Your task to perform on an android device: snooze an email in the gmail app Image 0: 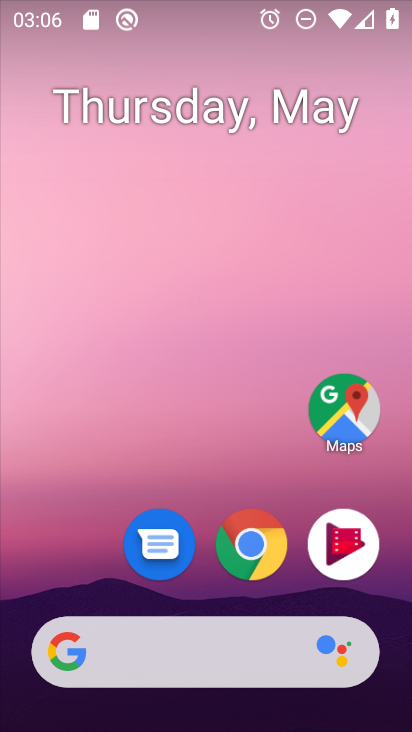
Step 0: drag from (80, 572) to (79, 185)
Your task to perform on an android device: snooze an email in the gmail app Image 1: 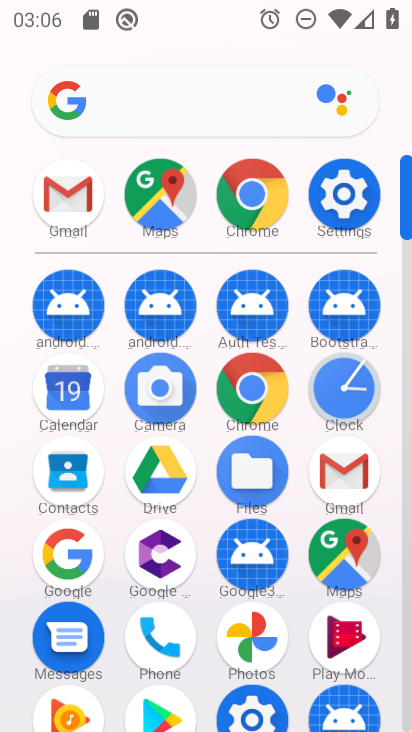
Step 1: click (363, 479)
Your task to perform on an android device: snooze an email in the gmail app Image 2: 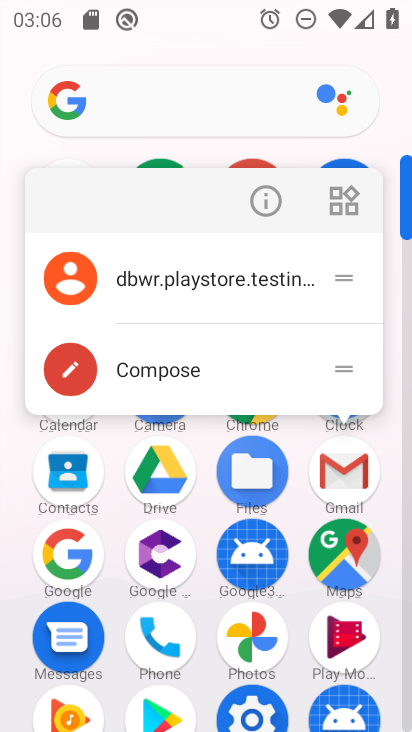
Step 2: click (362, 479)
Your task to perform on an android device: snooze an email in the gmail app Image 3: 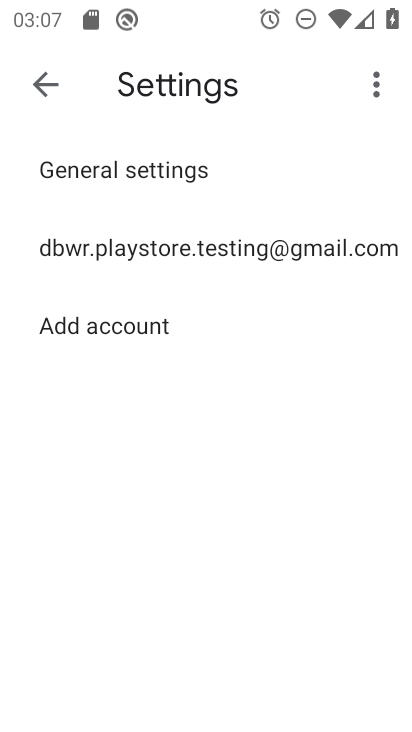
Step 3: click (52, 96)
Your task to perform on an android device: snooze an email in the gmail app Image 4: 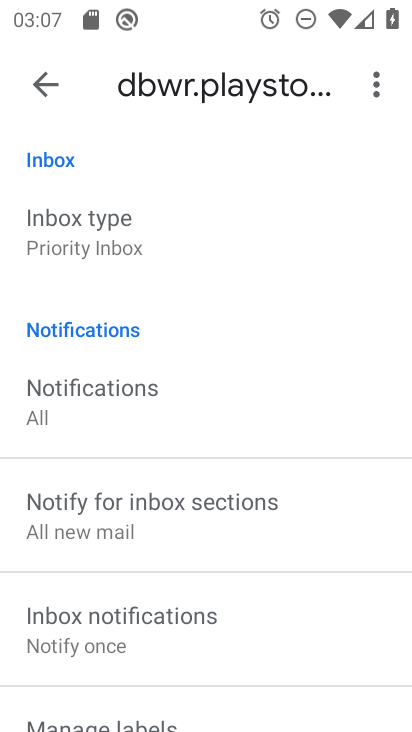
Step 4: drag from (299, 560) to (299, 486)
Your task to perform on an android device: snooze an email in the gmail app Image 5: 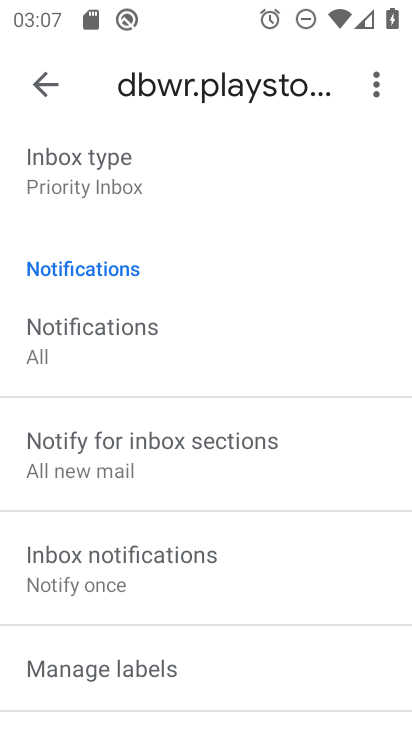
Step 5: drag from (297, 594) to (297, 524)
Your task to perform on an android device: snooze an email in the gmail app Image 6: 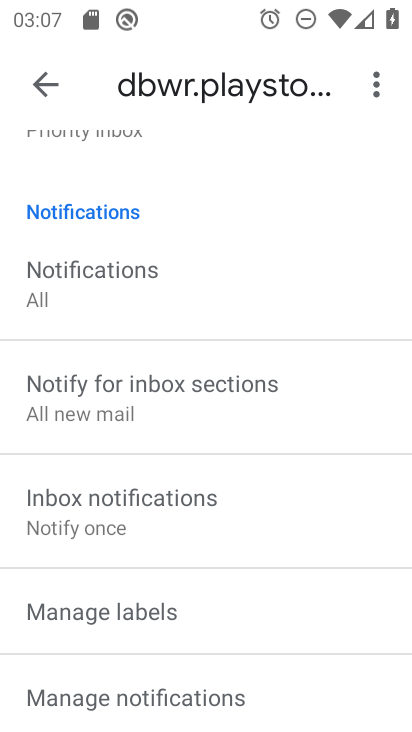
Step 6: click (39, 76)
Your task to perform on an android device: snooze an email in the gmail app Image 7: 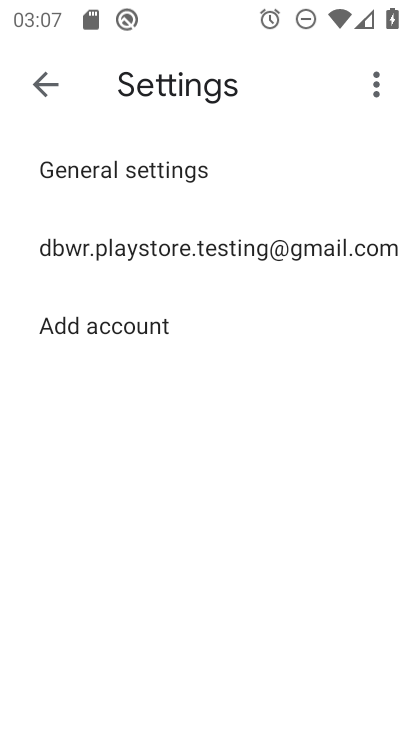
Step 7: click (57, 79)
Your task to perform on an android device: snooze an email in the gmail app Image 8: 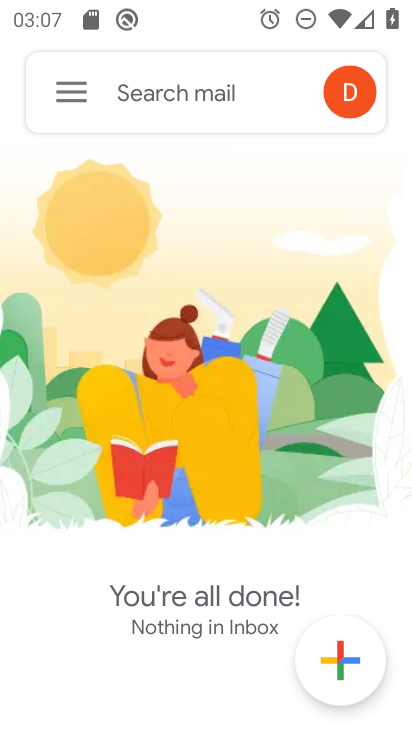
Step 8: click (78, 85)
Your task to perform on an android device: snooze an email in the gmail app Image 9: 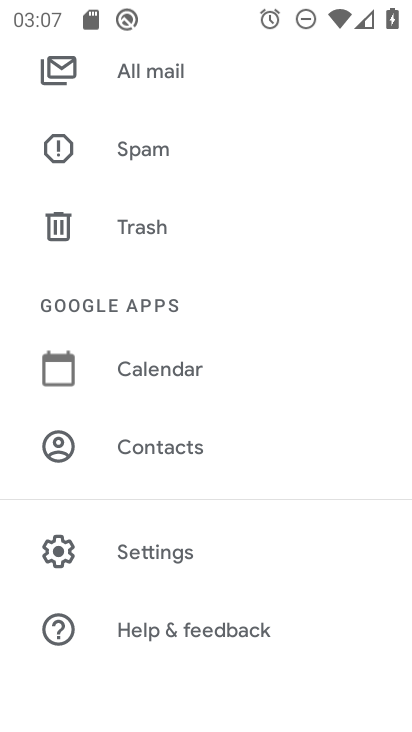
Step 9: drag from (284, 527) to (285, 386)
Your task to perform on an android device: snooze an email in the gmail app Image 10: 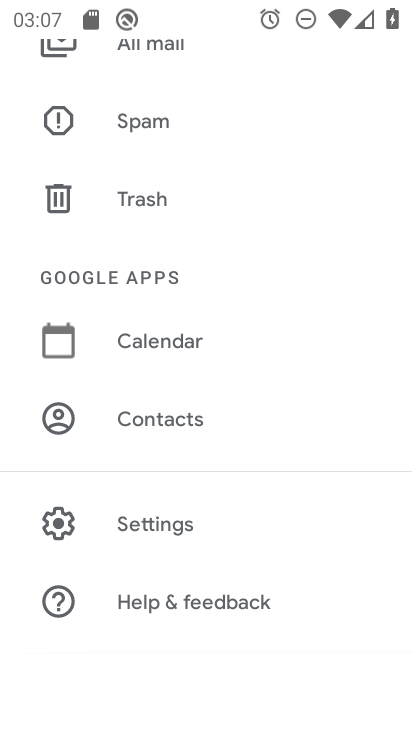
Step 10: drag from (300, 305) to (288, 463)
Your task to perform on an android device: snooze an email in the gmail app Image 11: 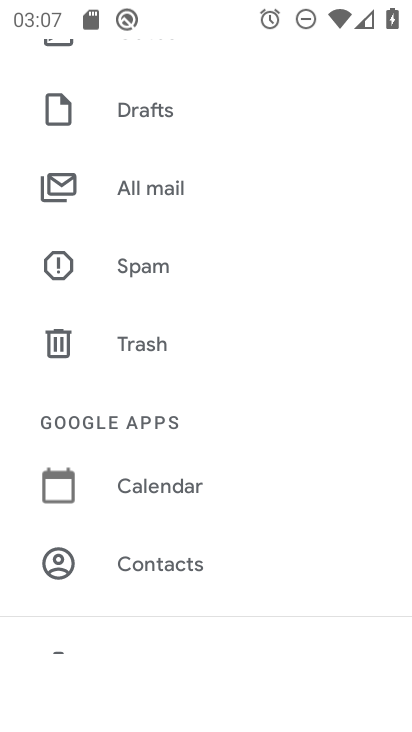
Step 11: drag from (288, 307) to (277, 444)
Your task to perform on an android device: snooze an email in the gmail app Image 12: 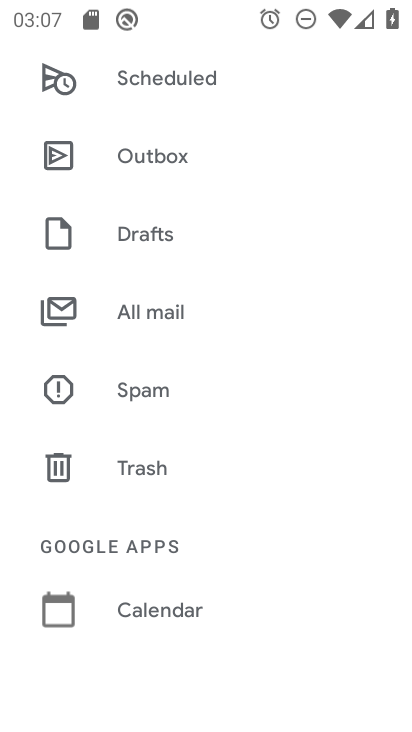
Step 12: drag from (267, 256) to (268, 349)
Your task to perform on an android device: snooze an email in the gmail app Image 13: 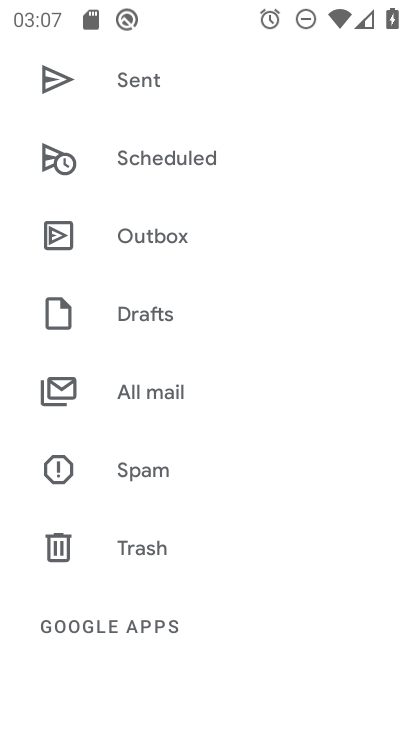
Step 13: drag from (269, 299) to (264, 415)
Your task to perform on an android device: snooze an email in the gmail app Image 14: 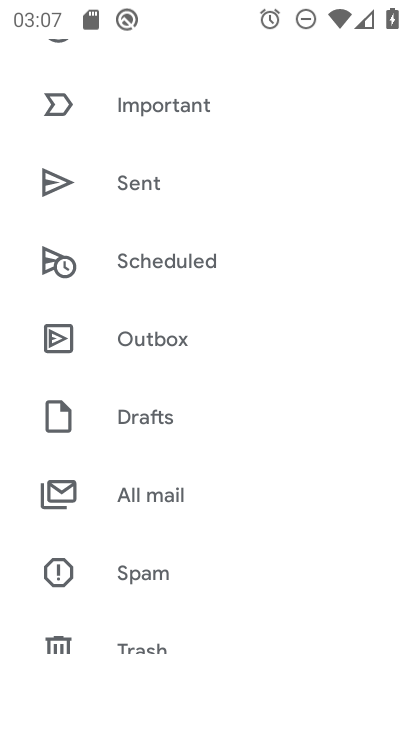
Step 14: drag from (268, 247) to (256, 345)
Your task to perform on an android device: snooze an email in the gmail app Image 15: 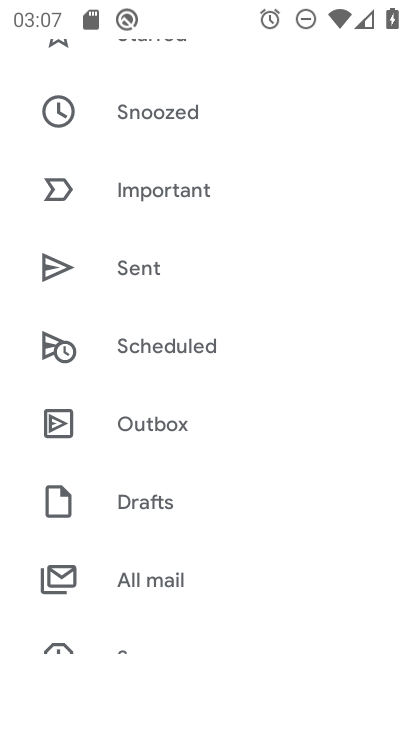
Step 15: drag from (262, 189) to (257, 311)
Your task to perform on an android device: snooze an email in the gmail app Image 16: 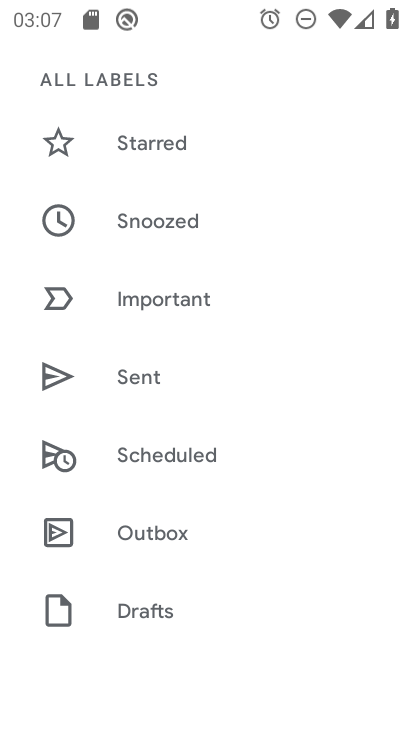
Step 16: drag from (274, 201) to (264, 321)
Your task to perform on an android device: snooze an email in the gmail app Image 17: 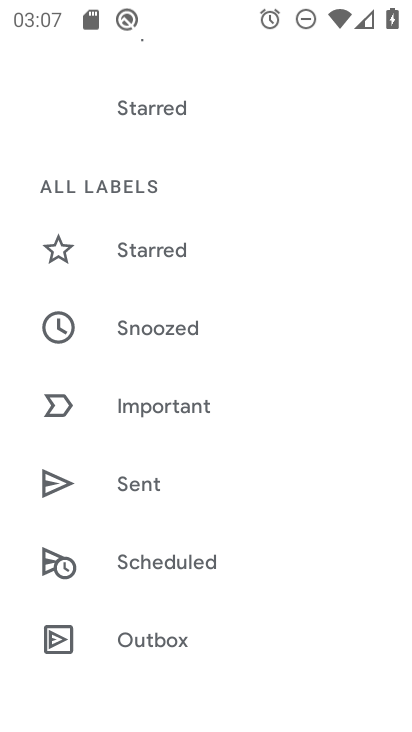
Step 17: drag from (262, 167) to (260, 276)
Your task to perform on an android device: snooze an email in the gmail app Image 18: 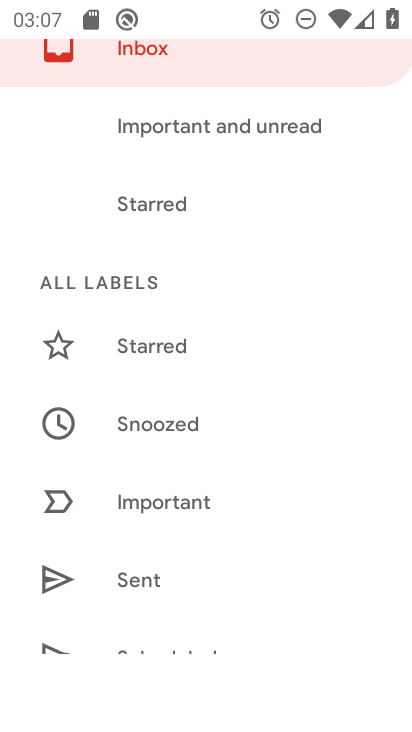
Step 18: drag from (235, 126) to (233, 300)
Your task to perform on an android device: snooze an email in the gmail app Image 19: 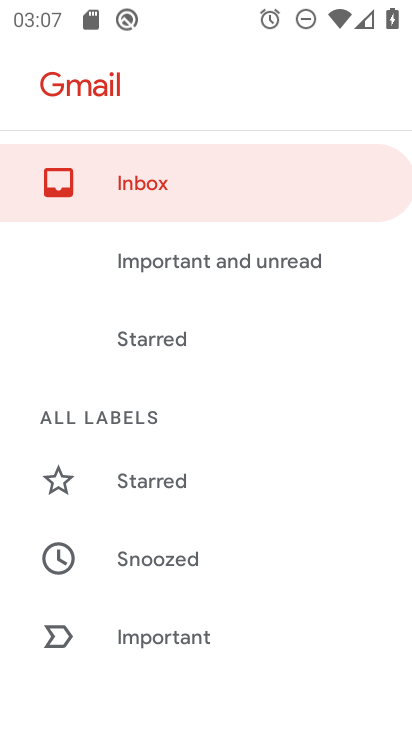
Step 19: click (191, 568)
Your task to perform on an android device: snooze an email in the gmail app Image 20: 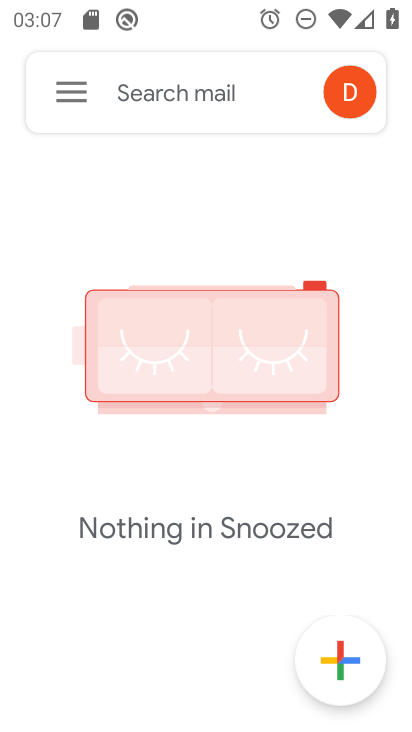
Step 20: task complete